Your task to perform on an android device: Open Yahoo.com Image 0: 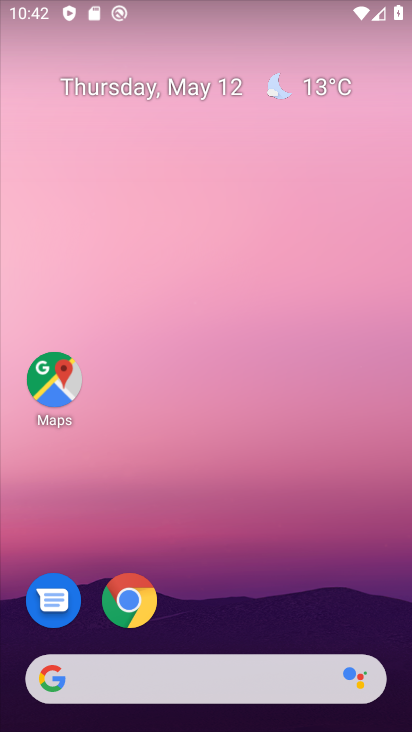
Step 0: click (131, 603)
Your task to perform on an android device: Open Yahoo.com Image 1: 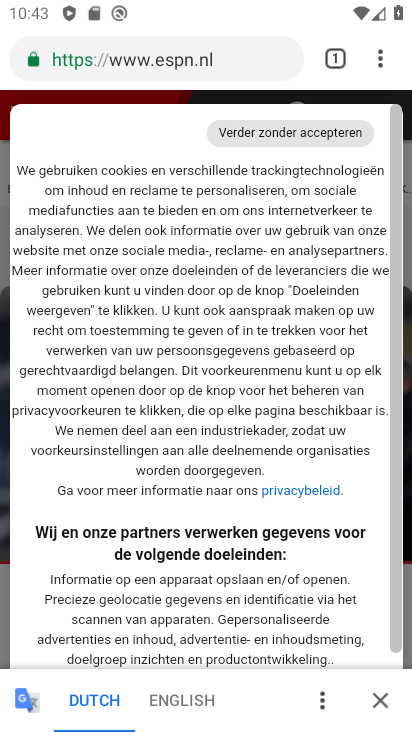
Step 1: click (185, 59)
Your task to perform on an android device: Open Yahoo.com Image 2: 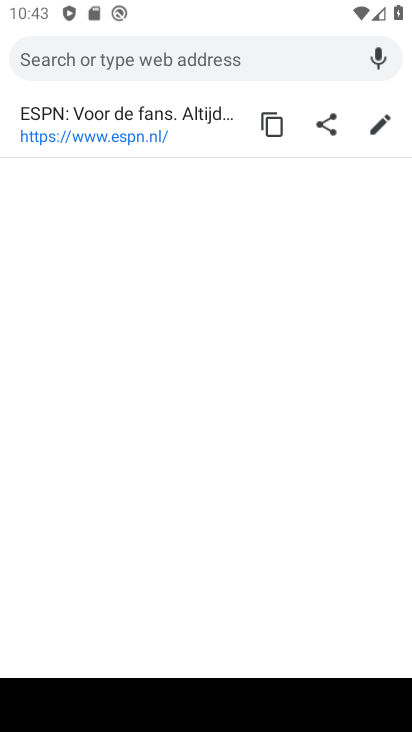
Step 2: type "yahoo.com"
Your task to perform on an android device: Open Yahoo.com Image 3: 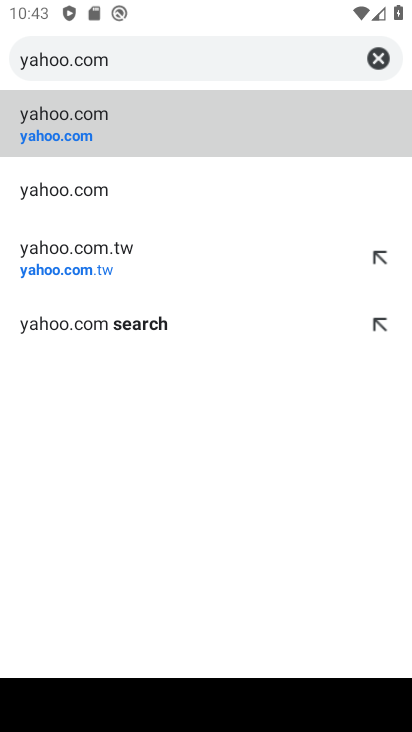
Step 3: click (62, 122)
Your task to perform on an android device: Open Yahoo.com Image 4: 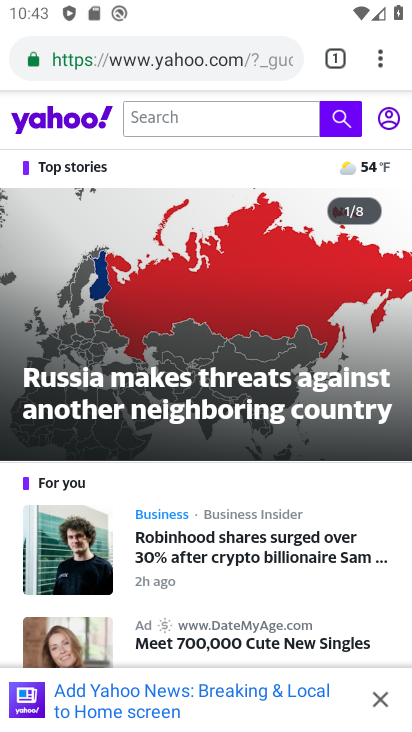
Step 4: task complete